Your task to perform on an android device: Open the map Image 0: 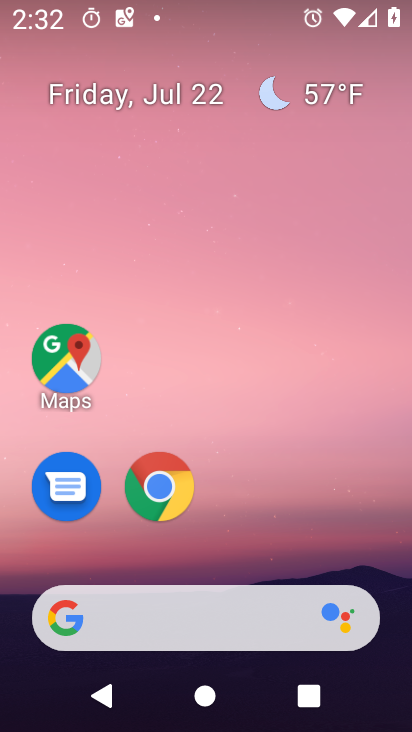
Step 0: drag from (345, 448) to (384, 59)
Your task to perform on an android device: Open the map Image 1: 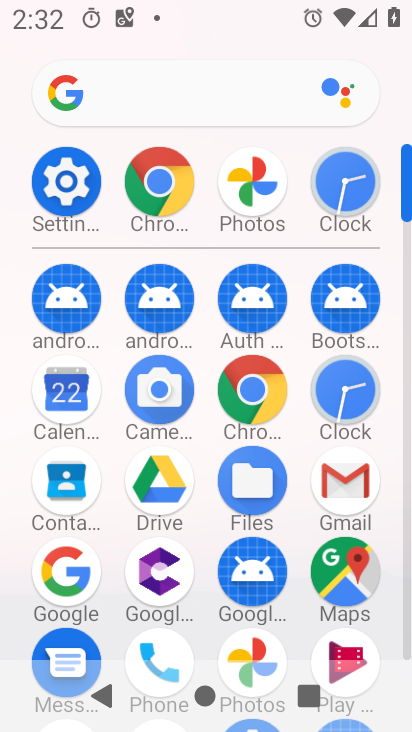
Step 1: click (350, 570)
Your task to perform on an android device: Open the map Image 2: 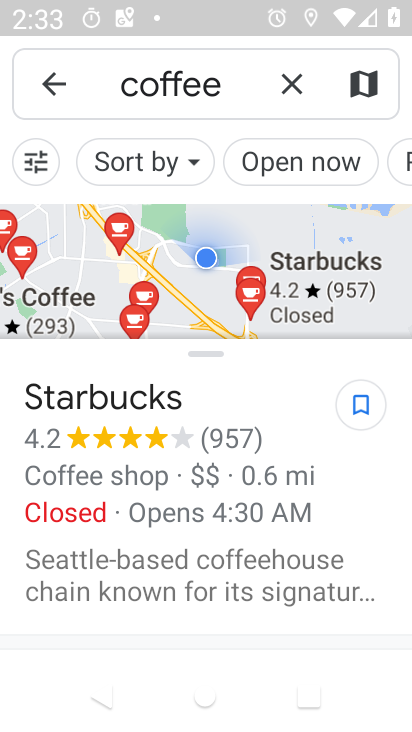
Step 2: task complete